Your task to perform on an android device: check the backup settings in the google photos Image 0: 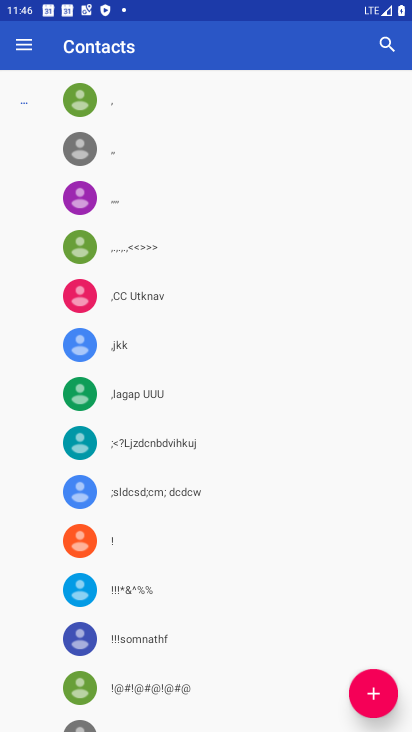
Step 0: press back button
Your task to perform on an android device: check the backup settings in the google photos Image 1: 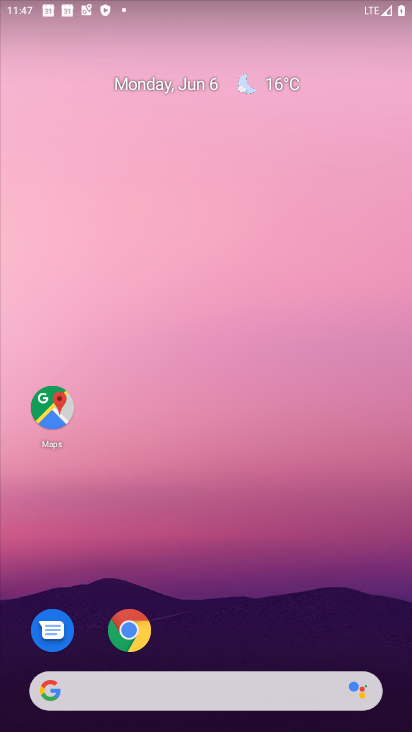
Step 1: drag from (251, 504) to (307, 107)
Your task to perform on an android device: check the backup settings in the google photos Image 2: 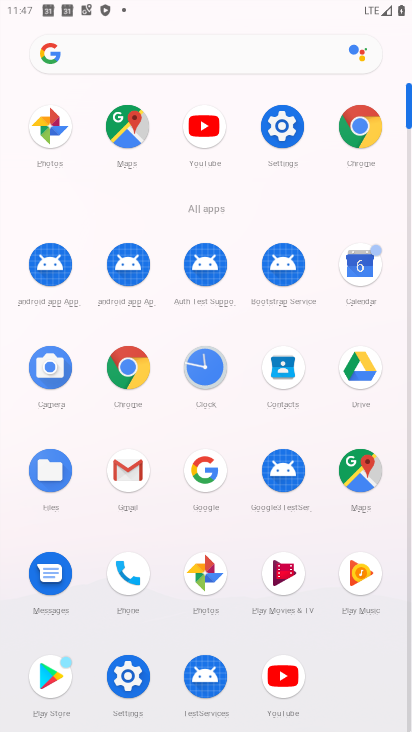
Step 2: click (211, 572)
Your task to perform on an android device: check the backup settings in the google photos Image 3: 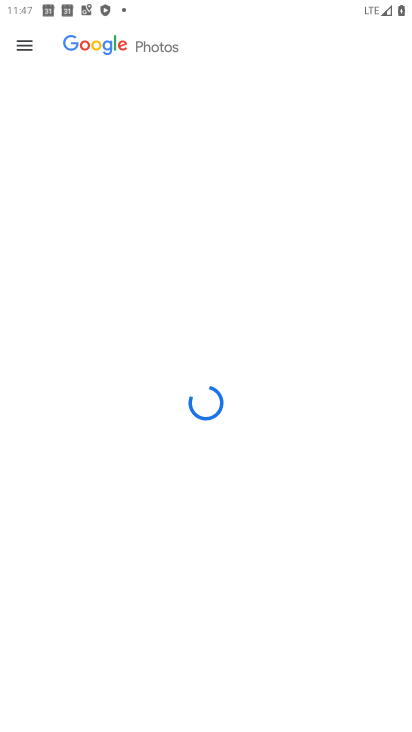
Step 3: click (32, 43)
Your task to perform on an android device: check the backup settings in the google photos Image 4: 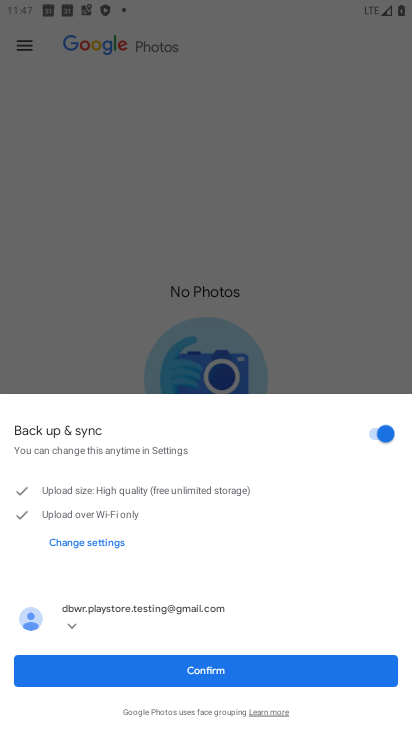
Step 4: click (182, 668)
Your task to perform on an android device: check the backup settings in the google photos Image 5: 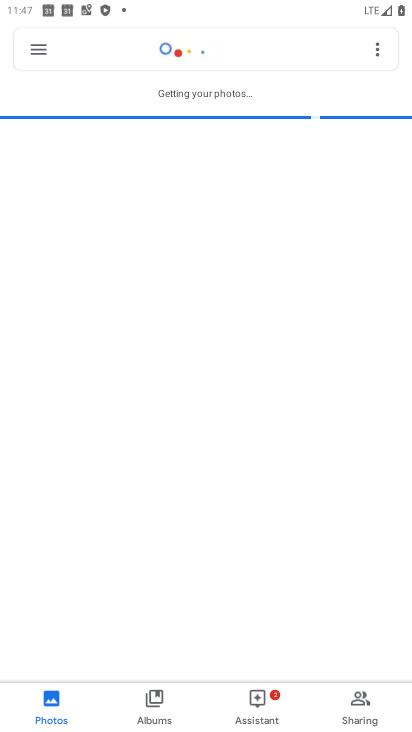
Step 5: click (32, 694)
Your task to perform on an android device: check the backup settings in the google photos Image 6: 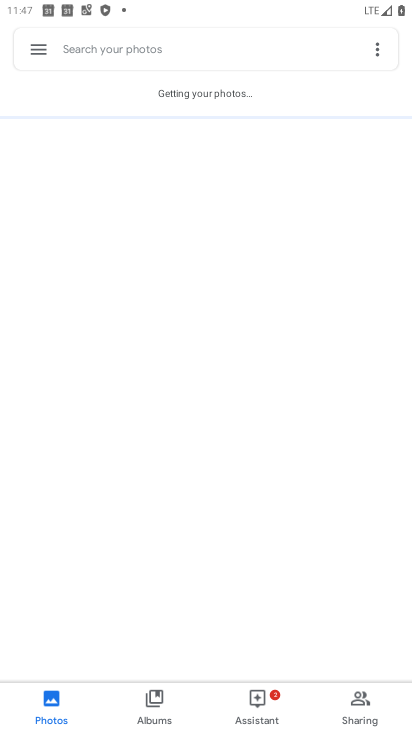
Step 6: task complete